Your task to perform on an android device: Search for seafood restaurants on Google Maps Image 0: 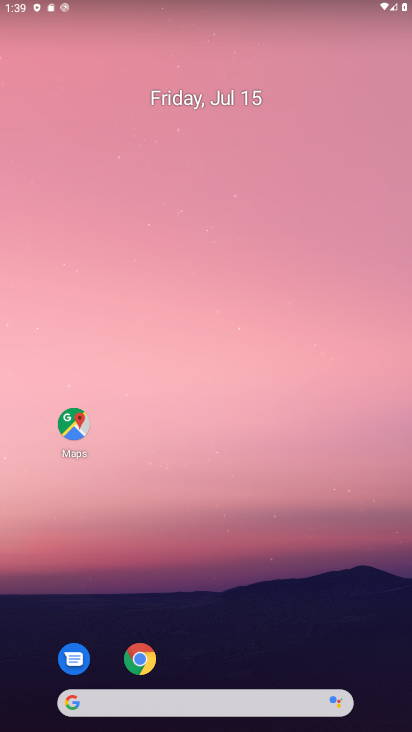
Step 0: drag from (246, 635) to (229, 330)
Your task to perform on an android device: Search for seafood restaurants on Google Maps Image 1: 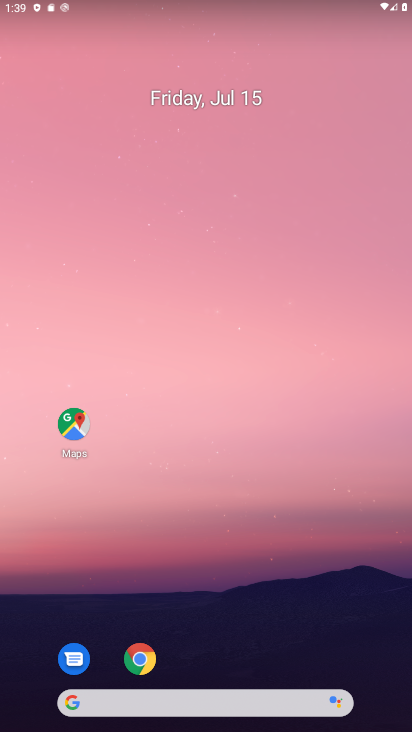
Step 1: drag from (196, 646) to (206, 325)
Your task to perform on an android device: Search for seafood restaurants on Google Maps Image 2: 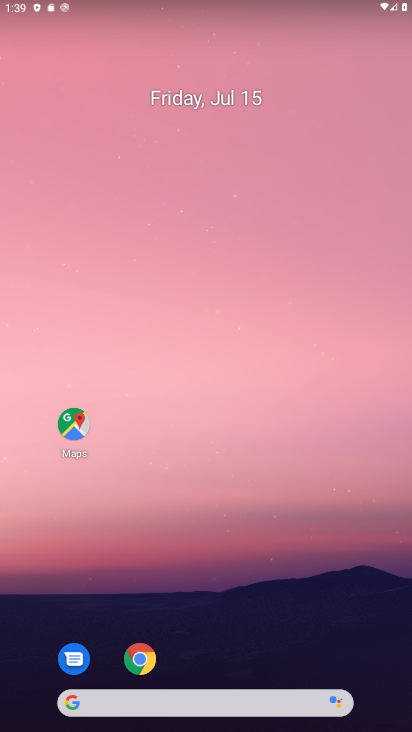
Step 2: drag from (234, 430) to (234, 283)
Your task to perform on an android device: Search for seafood restaurants on Google Maps Image 3: 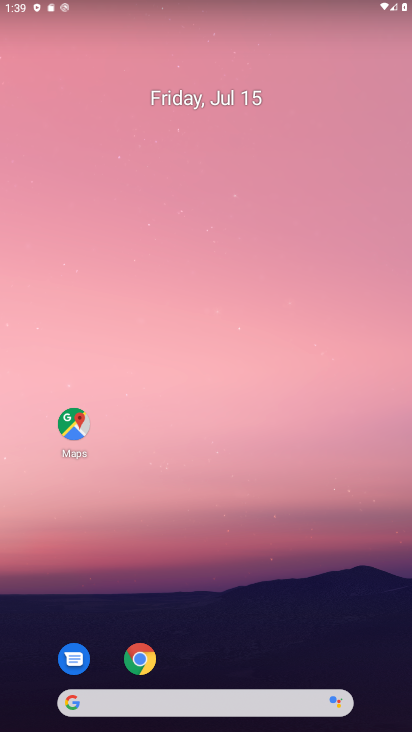
Step 3: click (68, 418)
Your task to perform on an android device: Search for seafood restaurants on Google Maps Image 4: 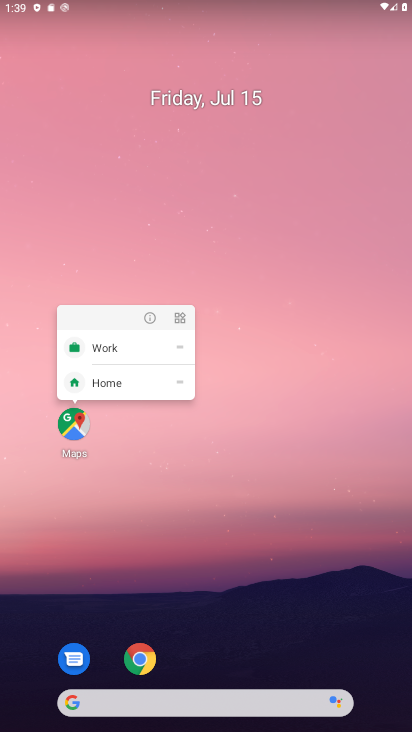
Step 4: click (68, 418)
Your task to perform on an android device: Search for seafood restaurants on Google Maps Image 5: 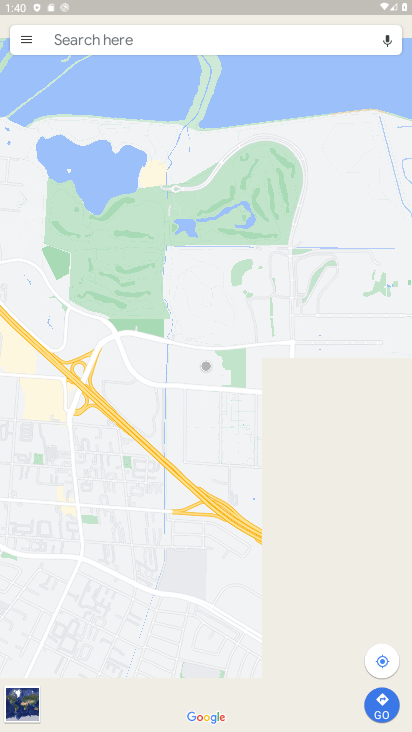
Step 5: drag from (241, 729) to (403, 586)
Your task to perform on an android device: Search for seafood restaurants on Google Maps Image 6: 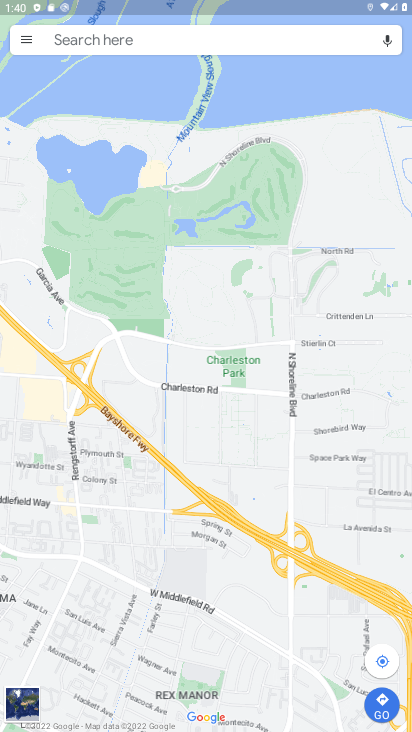
Step 6: click (174, 42)
Your task to perform on an android device: Search for seafood restaurants on Google Maps Image 7: 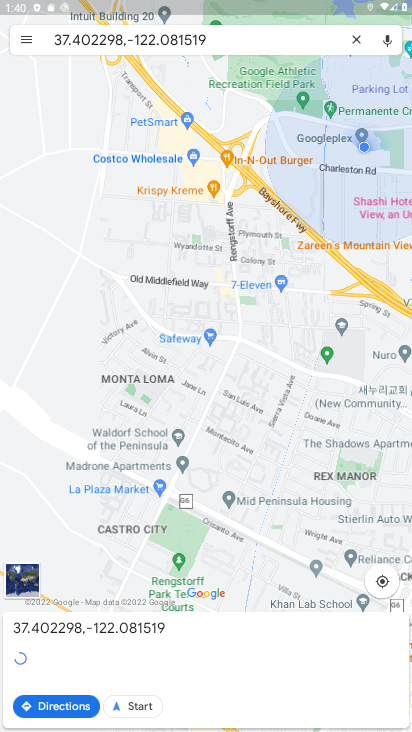
Step 7: type "seafood restaurant "
Your task to perform on an android device: Search for seafood restaurants on Google Maps Image 8: 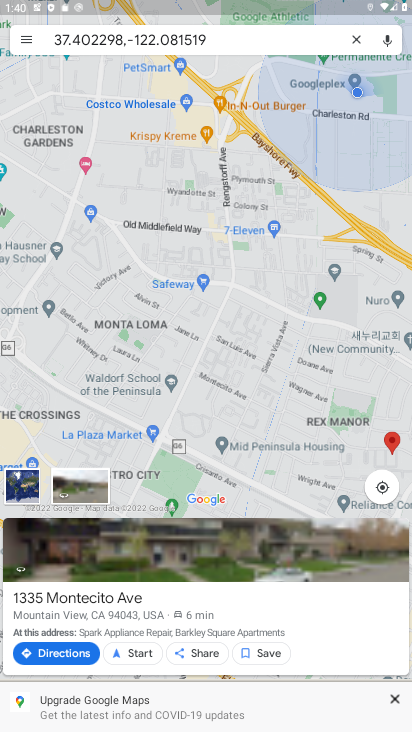
Step 8: click (364, 50)
Your task to perform on an android device: Search for seafood restaurants on Google Maps Image 9: 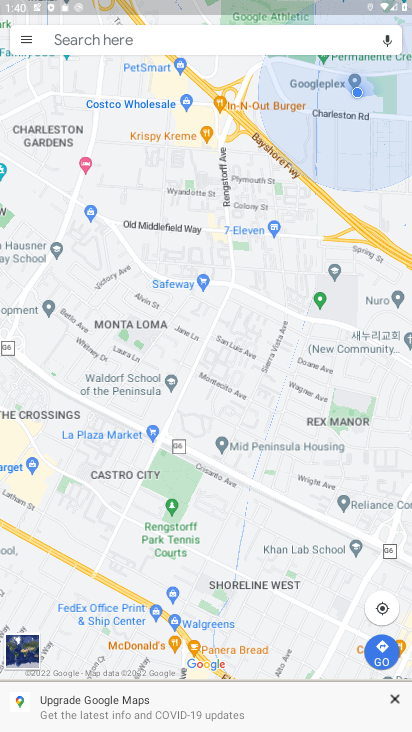
Step 9: click (192, 44)
Your task to perform on an android device: Search for seafood restaurants on Google Maps Image 10: 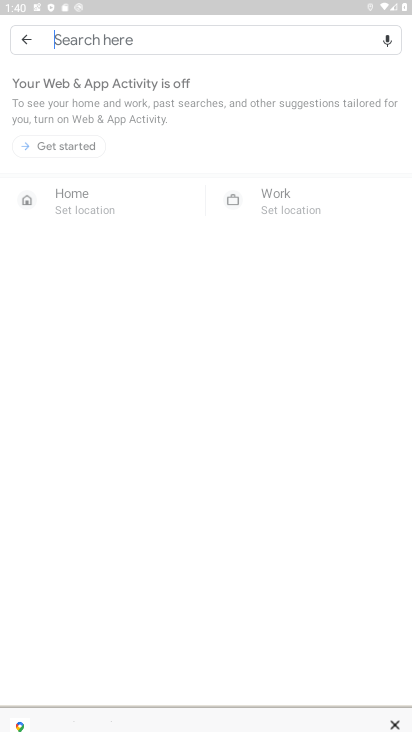
Step 10: type "seafood restaurants "
Your task to perform on an android device: Search for seafood restaurants on Google Maps Image 11: 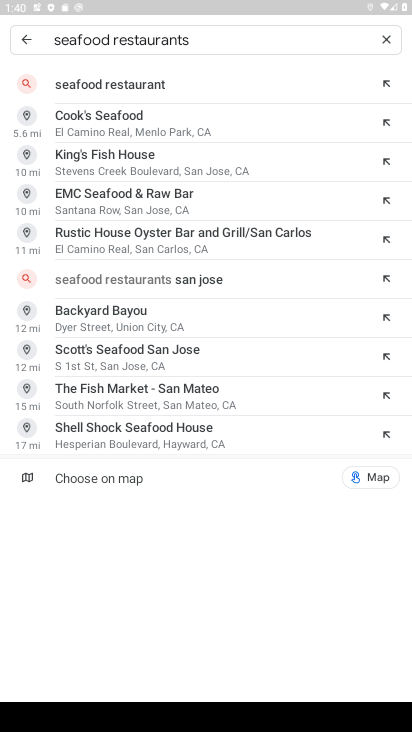
Step 11: click (122, 86)
Your task to perform on an android device: Search for seafood restaurants on Google Maps Image 12: 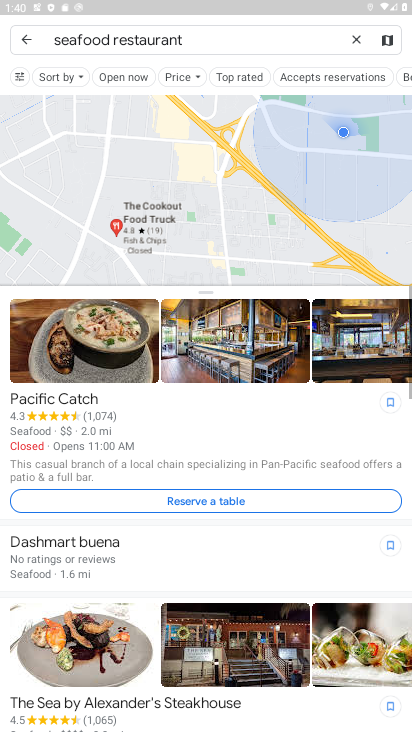
Step 12: task complete